Your task to perform on an android device: Open Yahoo.com Image 0: 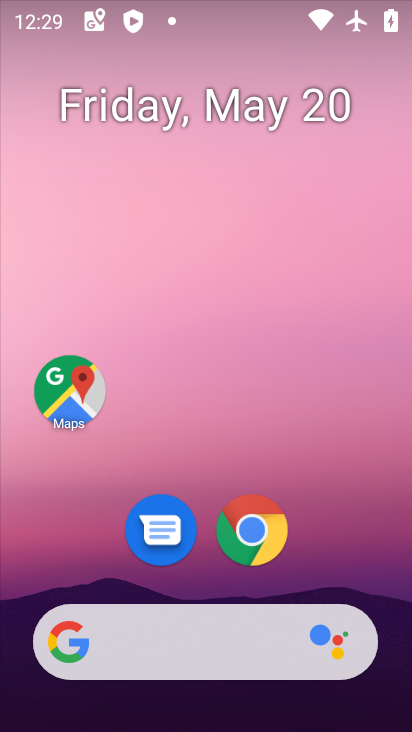
Step 0: click (204, 654)
Your task to perform on an android device: Open Yahoo.com Image 1: 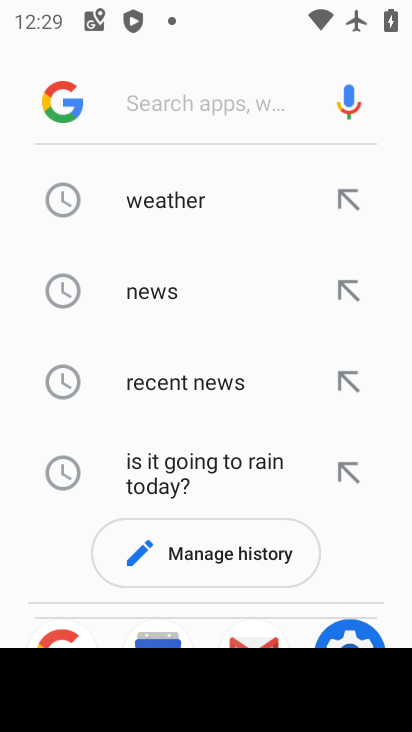
Step 1: click (242, 100)
Your task to perform on an android device: Open Yahoo.com Image 2: 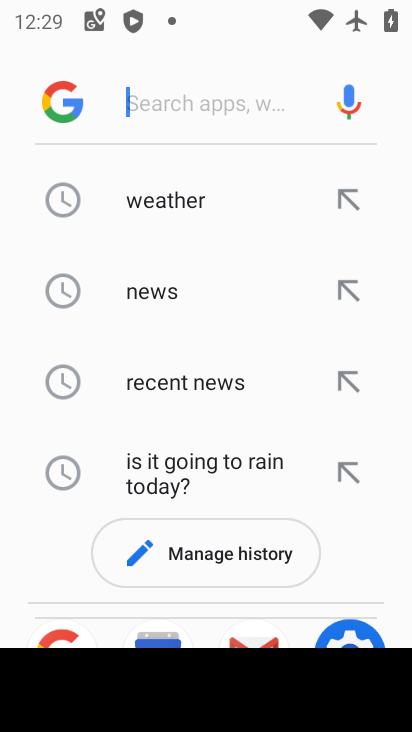
Step 2: type "yahoo.com"
Your task to perform on an android device: Open Yahoo.com Image 3: 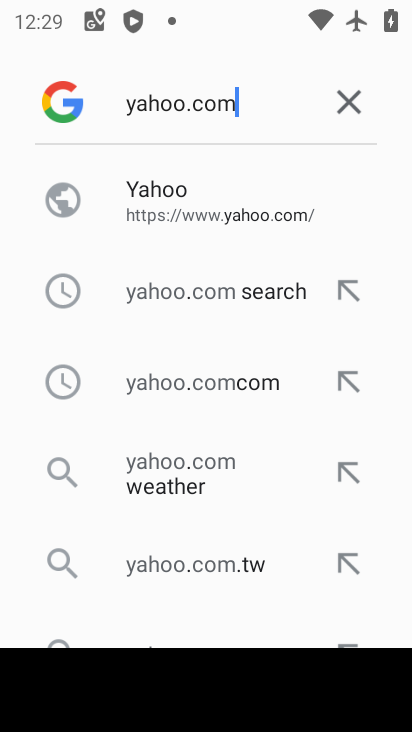
Step 3: click (257, 189)
Your task to perform on an android device: Open Yahoo.com Image 4: 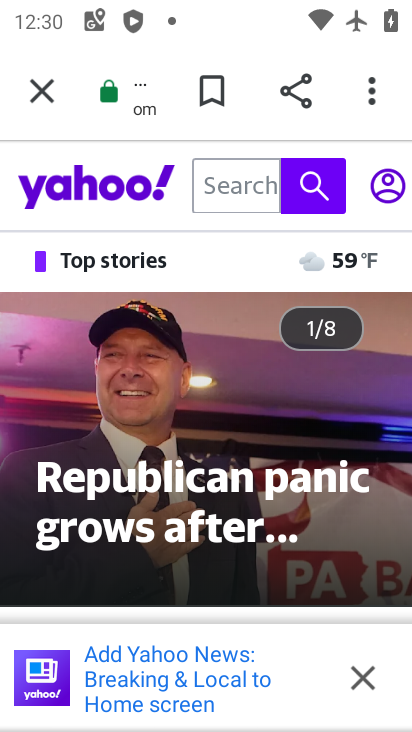
Step 4: task complete